Your task to perform on an android device: toggle show notifications on the lock screen Image 0: 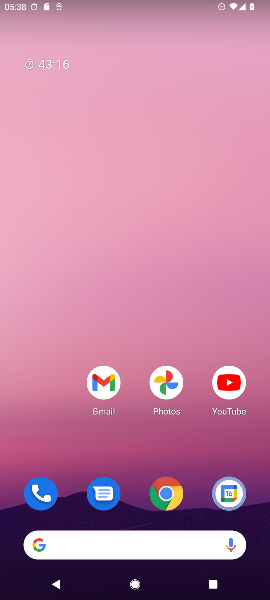
Step 0: press home button
Your task to perform on an android device: toggle show notifications on the lock screen Image 1: 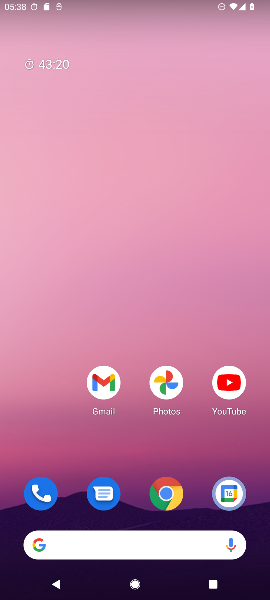
Step 1: drag from (64, 457) to (74, 139)
Your task to perform on an android device: toggle show notifications on the lock screen Image 2: 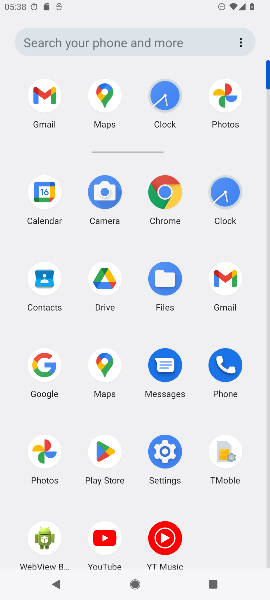
Step 2: click (163, 455)
Your task to perform on an android device: toggle show notifications on the lock screen Image 3: 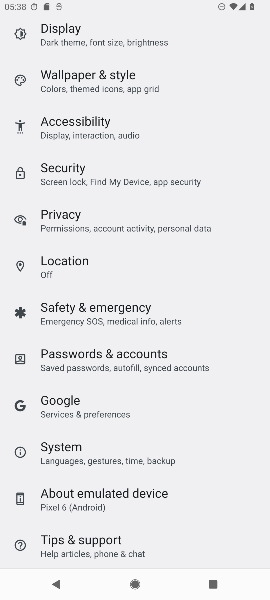
Step 3: drag from (221, 440) to (241, 317)
Your task to perform on an android device: toggle show notifications on the lock screen Image 4: 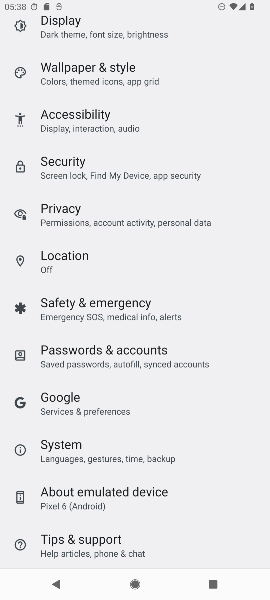
Step 4: drag from (242, 243) to (240, 309)
Your task to perform on an android device: toggle show notifications on the lock screen Image 5: 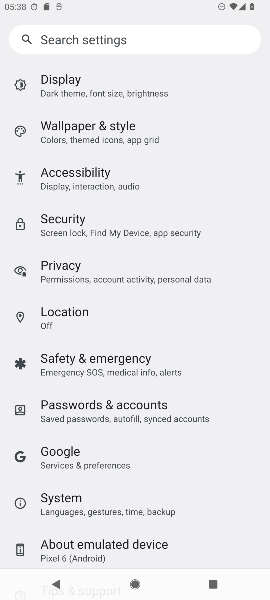
Step 5: drag from (253, 224) to (252, 295)
Your task to perform on an android device: toggle show notifications on the lock screen Image 6: 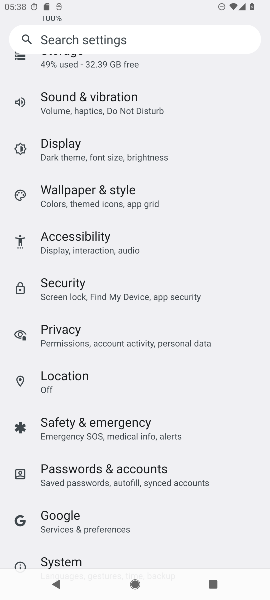
Step 6: drag from (238, 185) to (242, 275)
Your task to perform on an android device: toggle show notifications on the lock screen Image 7: 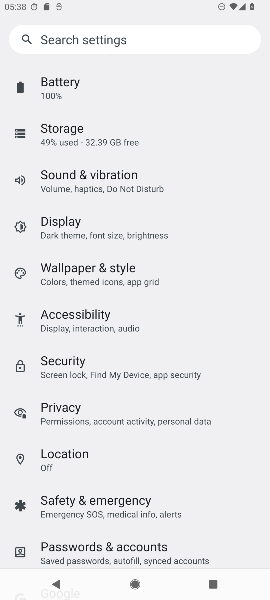
Step 7: drag from (230, 162) to (230, 232)
Your task to perform on an android device: toggle show notifications on the lock screen Image 8: 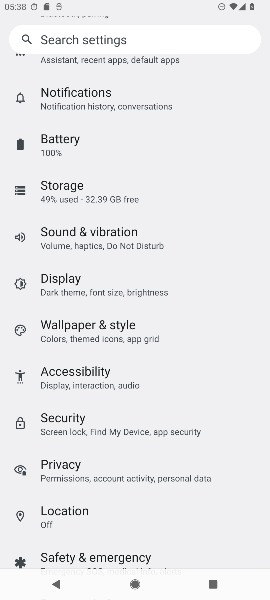
Step 8: drag from (238, 112) to (241, 252)
Your task to perform on an android device: toggle show notifications on the lock screen Image 9: 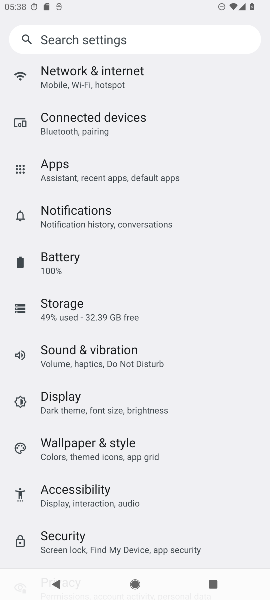
Step 9: drag from (236, 105) to (237, 243)
Your task to perform on an android device: toggle show notifications on the lock screen Image 10: 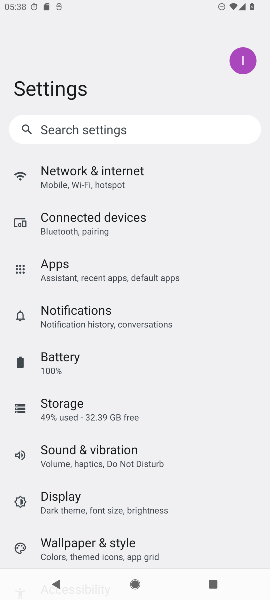
Step 10: click (136, 319)
Your task to perform on an android device: toggle show notifications on the lock screen Image 11: 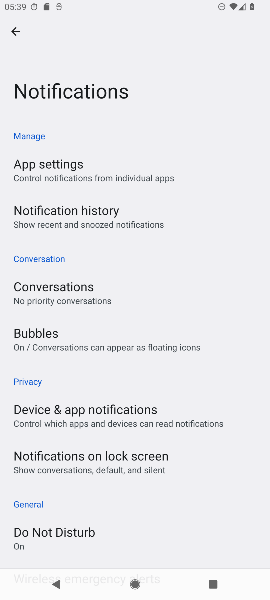
Step 11: drag from (221, 387) to (234, 287)
Your task to perform on an android device: toggle show notifications on the lock screen Image 12: 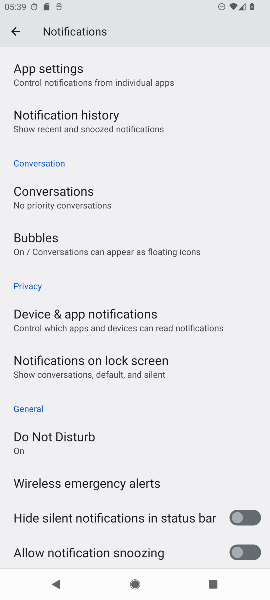
Step 12: drag from (212, 441) to (217, 338)
Your task to perform on an android device: toggle show notifications on the lock screen Image 13: 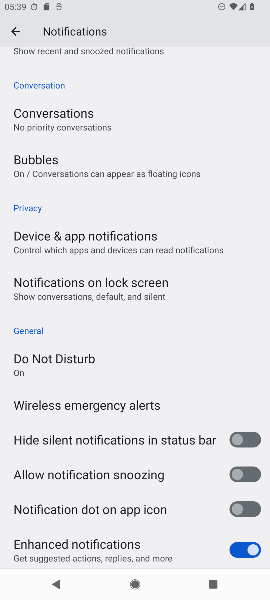
Step 13: drag from (192, 500) to (202, 317)
Your task to perform on an android device: toggle show notifications on the lock screen Image 14: 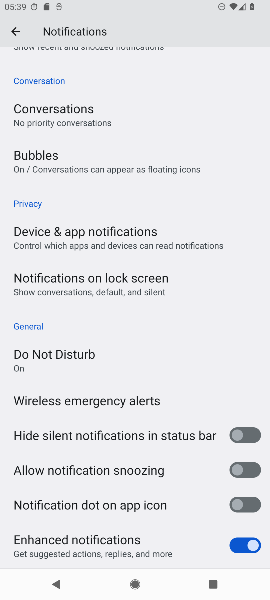
Step 14: click (130, 285)
Your task to perform on an android device: toggle show notifications on the lock screen Image 15: 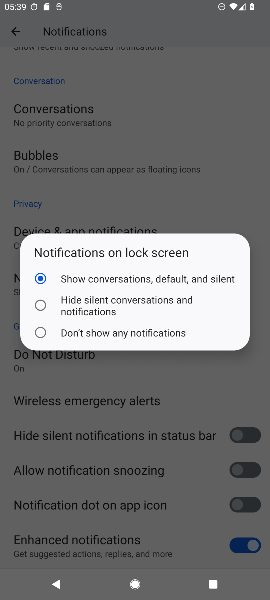
Step 15: click (100, 302)
Your task to perform on an android device: toggle show notifications on the lock screen Image 16: 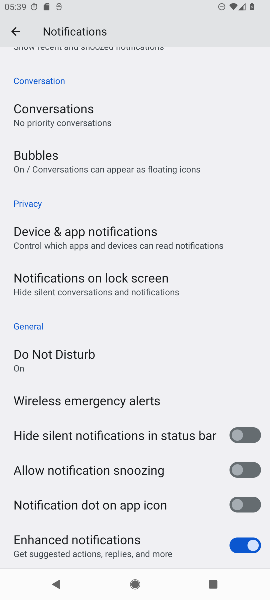
Step 16: task complete